Your task to perform on an android device: turn on the 12-hour format for clock Image 0: 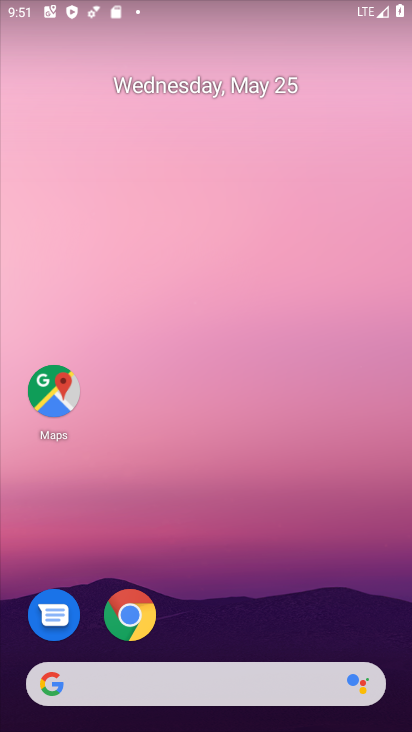
Step 0: drag from (253, 491) to (286, 42)
Your task to perform on an android device: turn on the 12-hour format for clock Image 1: 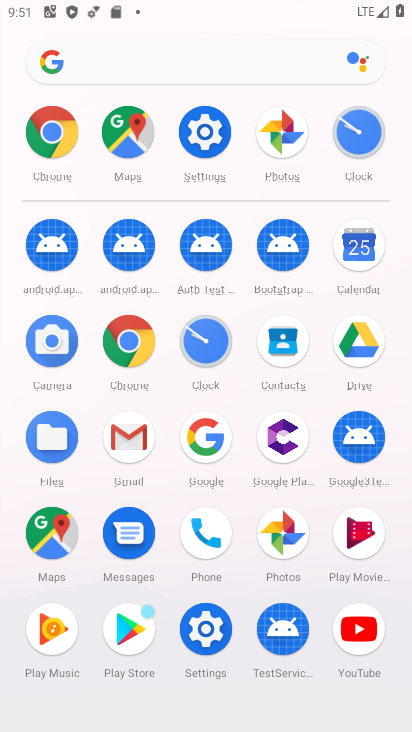
Step 1: click (351, 145)
Your task to perform on an android device: turn on the 12-hour format for clock Image 2: 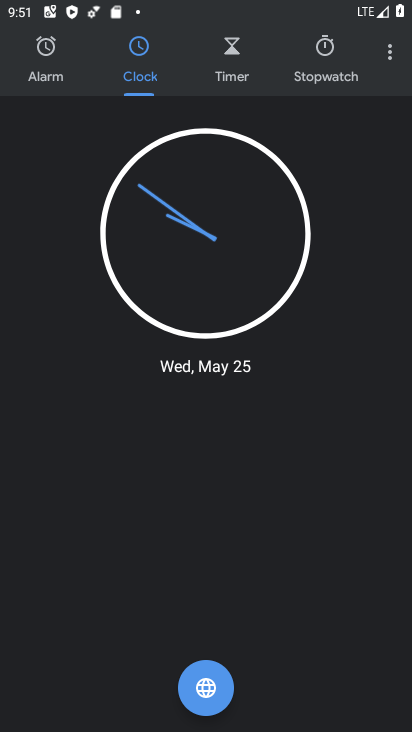
Step 2: click (385, 61)
Your task to perform on an android device: turn on the 12-hour format for clock Image 3: 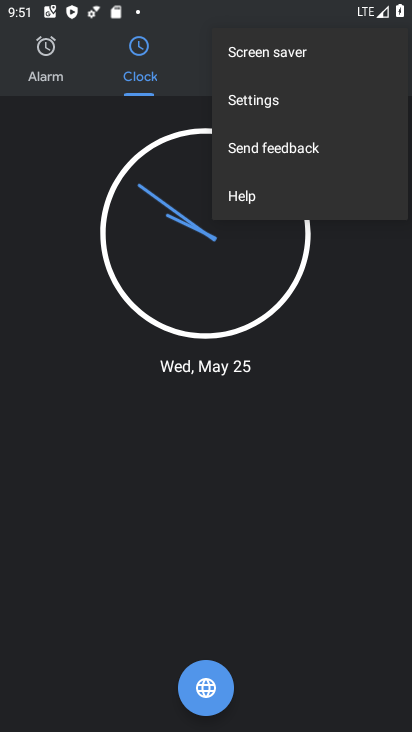
Step 3: click (319, 115)
Your task to perform on an android device: turn on the 12-hour format for clock Image 4: 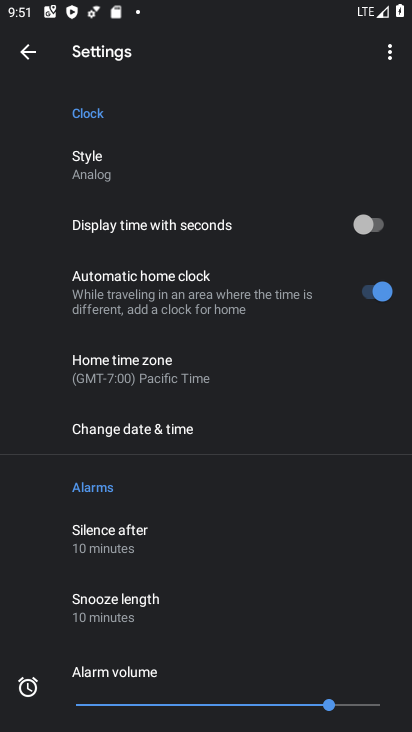
Step 4: click (274, 438)
Your task to perform on an android device: turn on the 12-hour format for clock Image 5: 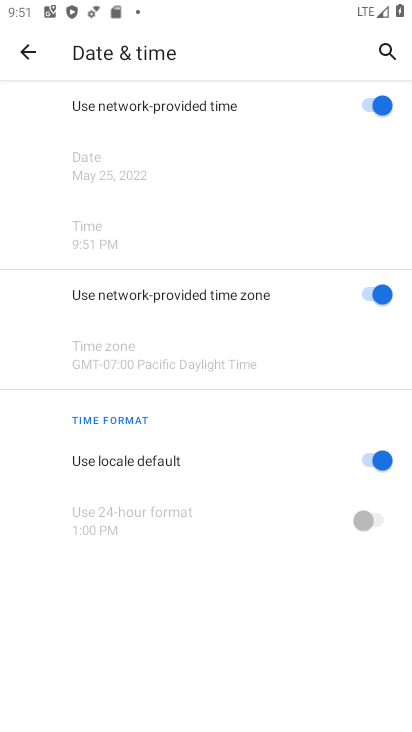
Step 5: task complete